Your task to perform on an android device: Show me popular videos on Youtube Image 0: 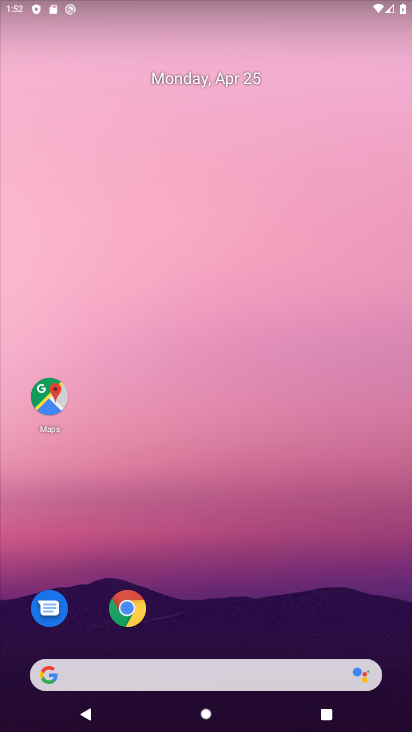
Step 0: drag from (195, 563) to (235, 210)
Your task to perform on an android device: Show me popular videos on Youtube Image 1: 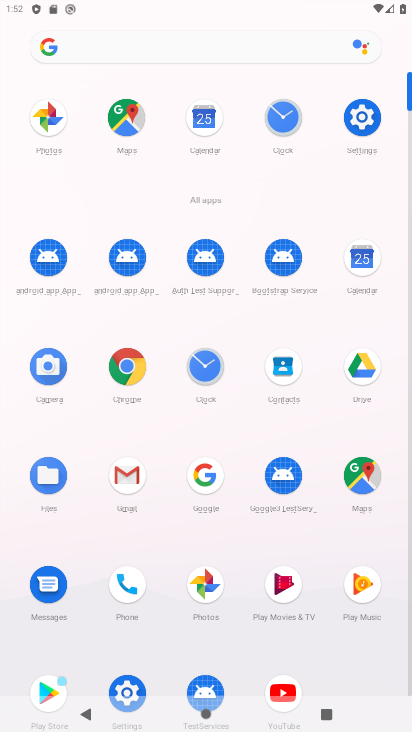
Step 1: click (273, 692)
Your task to perform on an android device: Show me popular videos on Youtube Image 2: 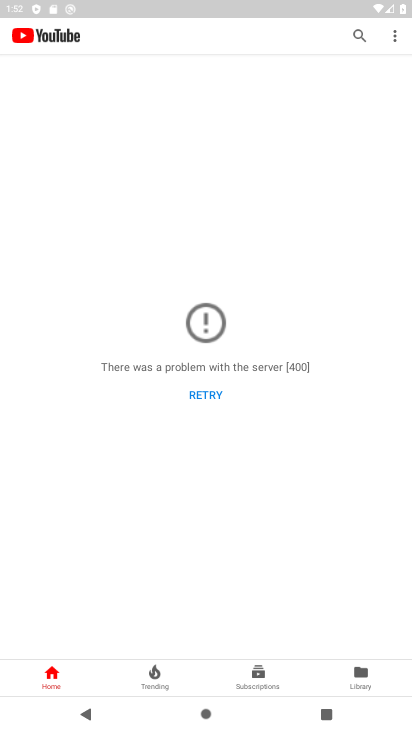
Step 2: click (356, 38)
Your task to perform on an android device: Show me popular videos on Youtube Image 3: 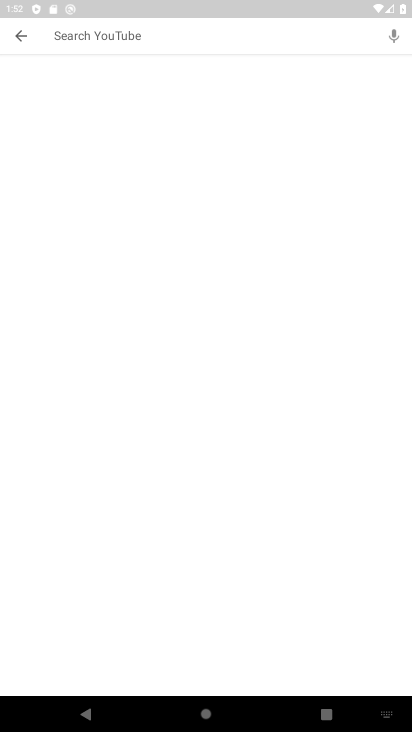
Step 3: type "popular videos"
Your task to perform on an android device: Show me popular videos on Youtube Image 4: 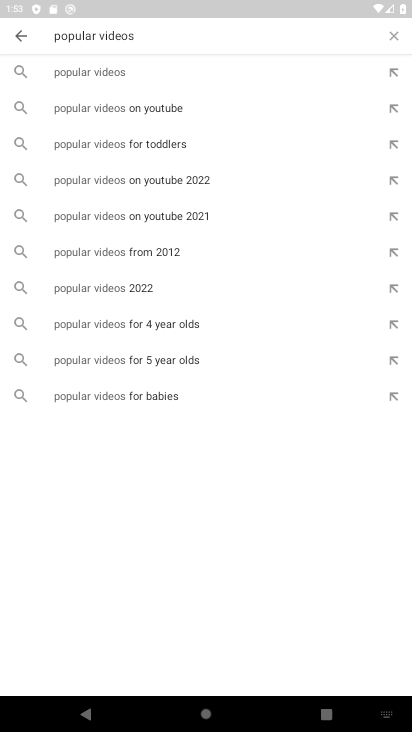
Step 4: click (122, 79)
Your task to perform on an android device: Show me popular videos on Youtube Image 5: 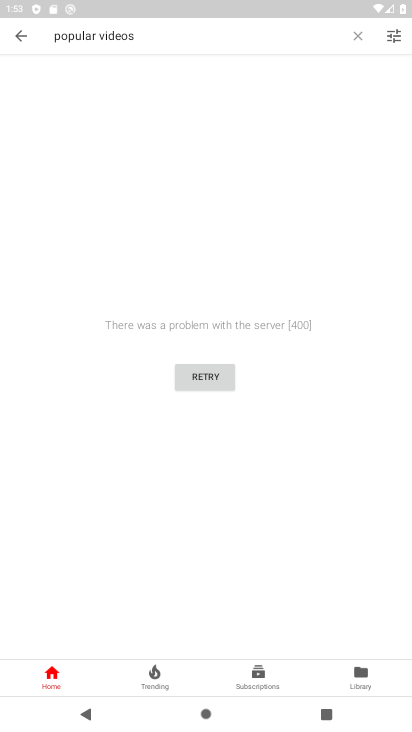
Step 5: task complete